Your task to perform on an android device: turn on translation in the chrome app Image 0: 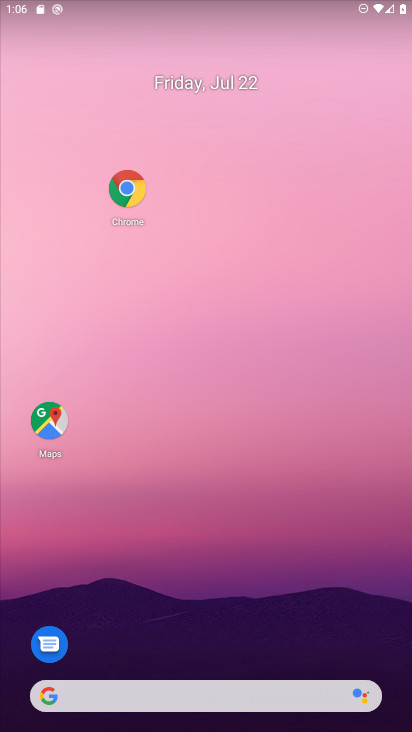
Step 0: click (124, 169)
Your task to perform on an android device: turn on translation in the chrome app Image 1: 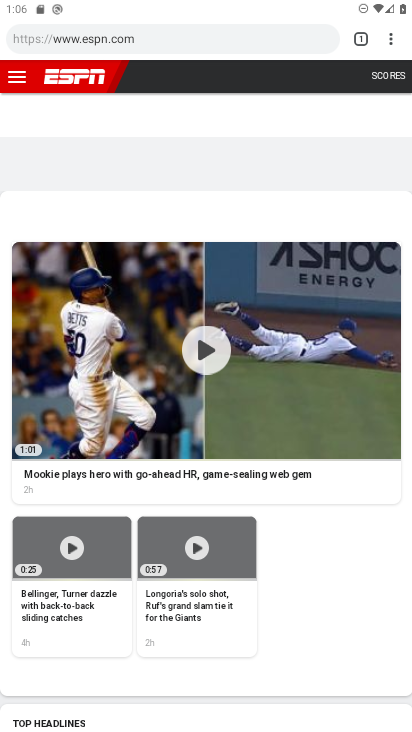
Step 1: click (398, 49)
Your task to perform on an android device: turn on translation in the chrome app Image 2: 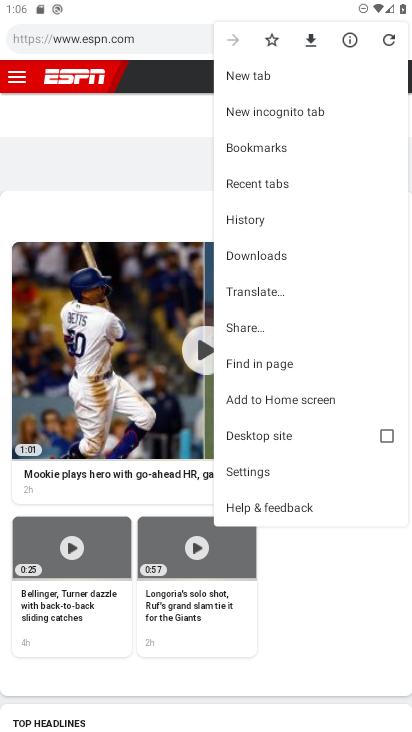
Step 2: click (267, 481)
Your task to perform on an android device: turn on translation in the chrome app Image 3: 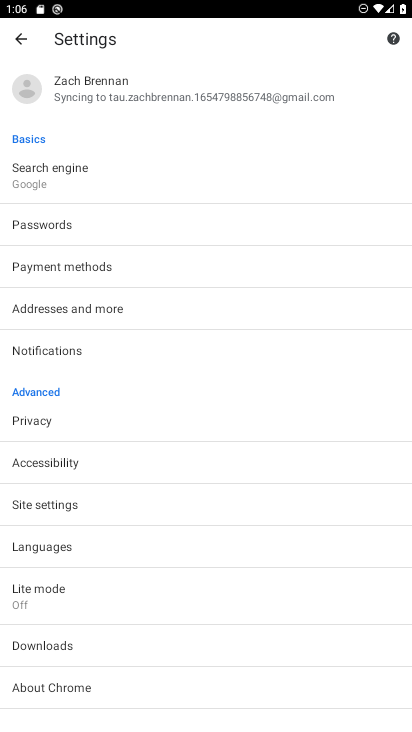
Step 3: click (116, 548)
Your task to perform on an android device: turn on translation in the chrome app Image 4: 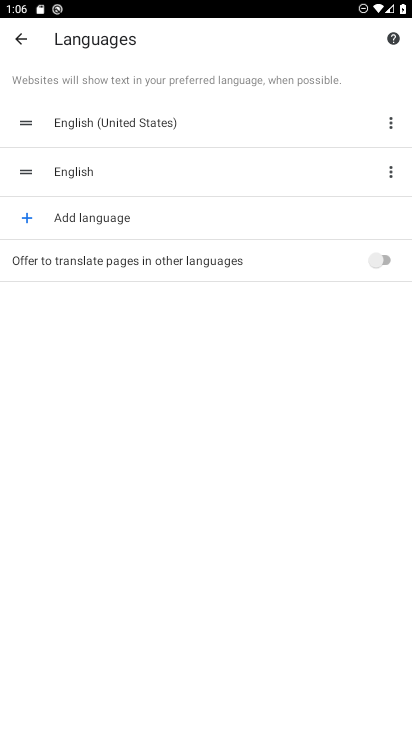
Step 4: click (375, 268)
Your task to perform on an android device: turn on translation in the chrome app Image 5: 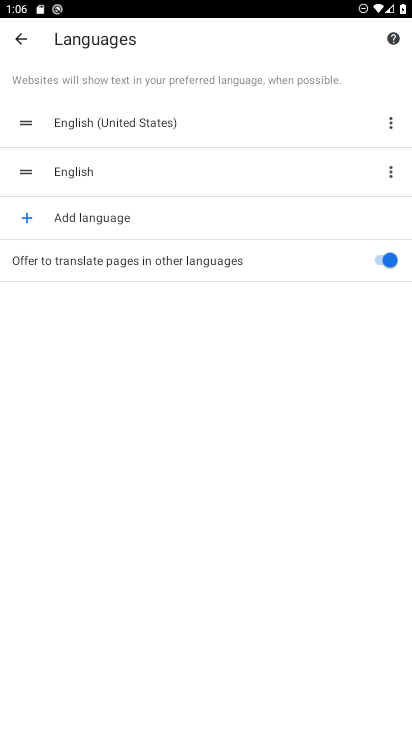
Step 5: task complete